Your task to perform on an android device: Open Google Chrome and click the shortcut for Amazon.com Image 0: 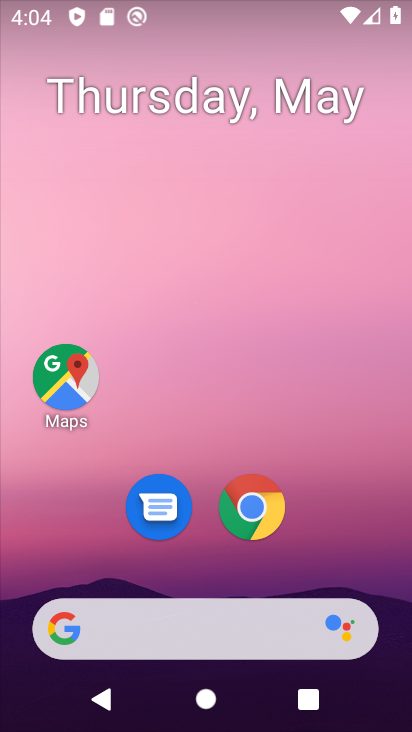
Step 0: drag from (334, 628) to (102, 115)
Your task to perform on an android device: Open Google Chrome and click the shortcut for Amazon.com Image 1: 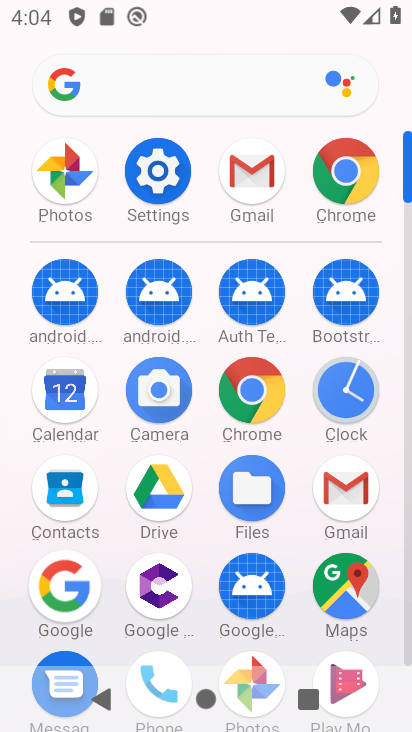
Step 1: click (332, 175)
Your task to perform on an android device: Open Google Chrome and click the shortcut for Amazon.com Image 2: 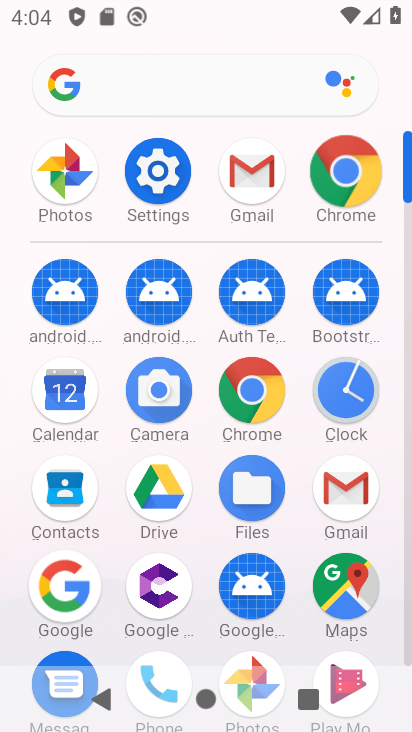
Step 2: click (332, 175)
Your task to perform on an android device: Open Google Chrome and click the shortcut for Amazon.com Image 3: 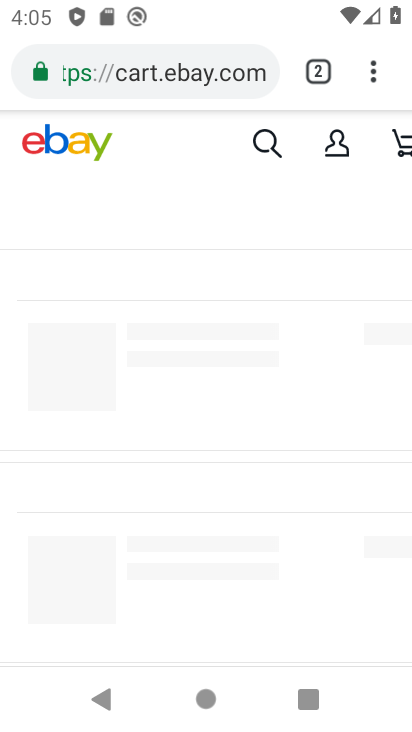
Step 3: click (374, 68)
Your task to perform on an android device: Open Google Chrome and click the shortcut for Amazon.com Image 4: 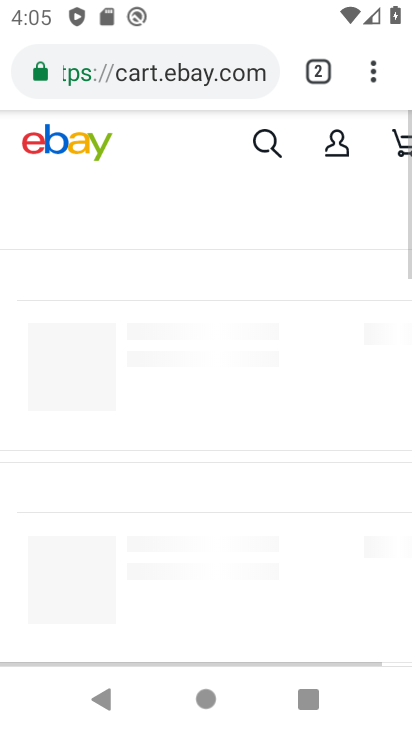
Step 4: drag from (368, 73) to (105, 401)
Your task to perform on an android device: Open Google Chrome and click the shortcut for Amazon.com Image 5: 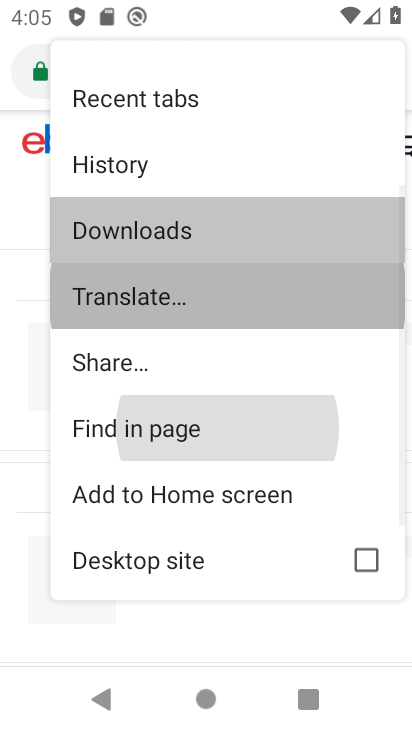
Step 5: click (135, 188)
Your task to perform on an android device: Open Google Chrome and click the shortcut for Amazon.com Image 6: 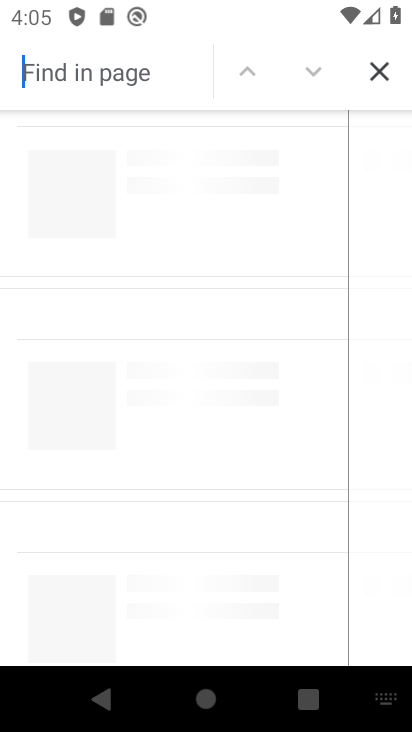
Step 6: click (378, 68)
Your task to perform on an android device: Open Google Chrome and click the shortcut for Amazon.com Image 7: 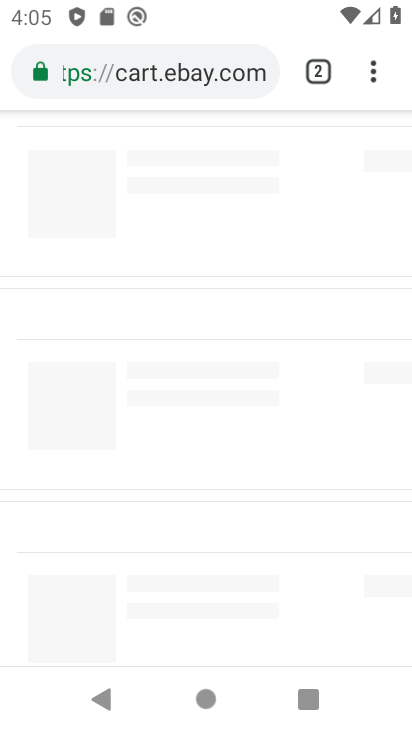
Step 7: click (365, 74)
Your task to perform on an android device: Open Google Chrome and click the shortcut for Amazon.com Image 8: 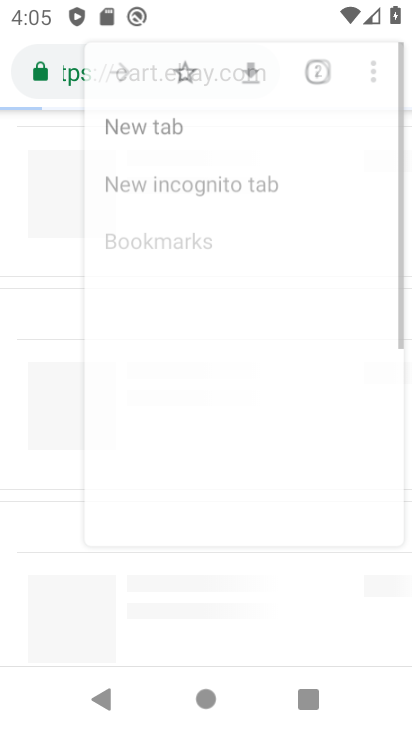
Step 8: click (367, 74)
Your task to perform on an android device: Open Google Chrome and click the shortcut for Amazon.com Image 9: 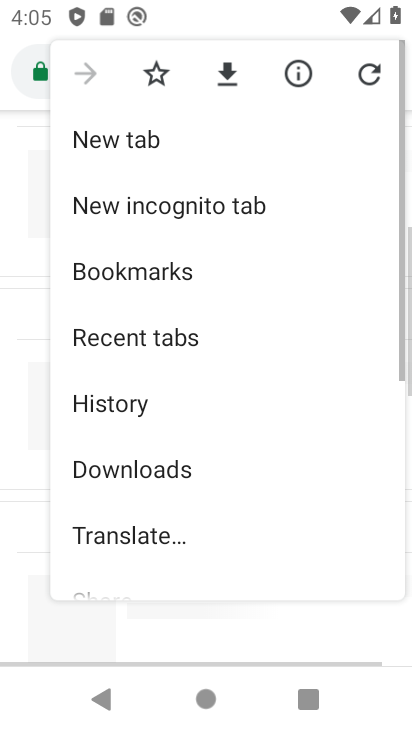
Step 9: click (367, 74)
Your task to perform on an android device: Open Google Chrome and click the shortcut for Amazon.com Image 10: 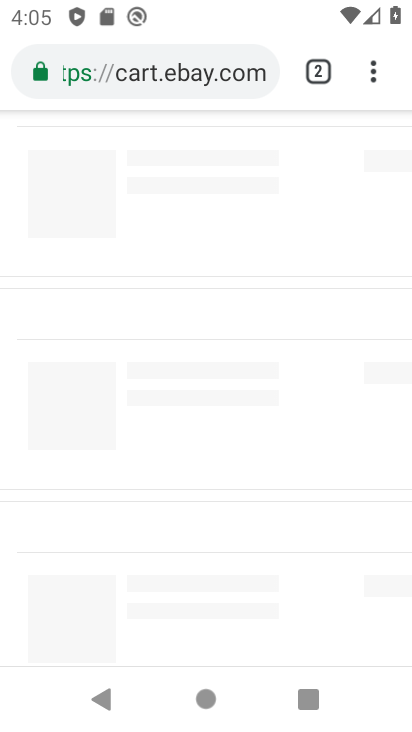
Step 10: press back button
Your task to perform on an android device: Open Google Chrome and click the shortcut for Amazon.com Image 11: 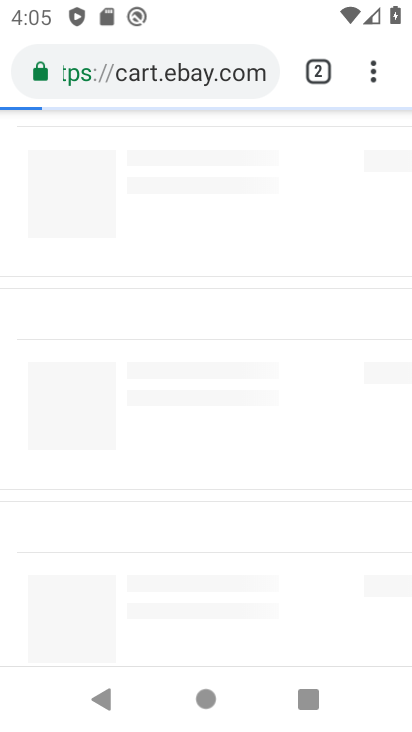
Step 11: press back button
Your task to perform on an android device: Open Google Chrome and click the shortcut for Amazon.com Image 12: 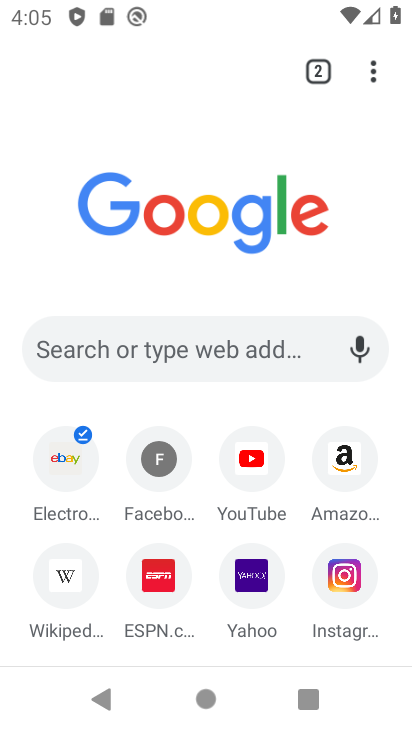
Step 12: click (352, 454)
Your task to perform on an android device: Open Google Chrome and click the shortcut for Amazon.com Image 13: 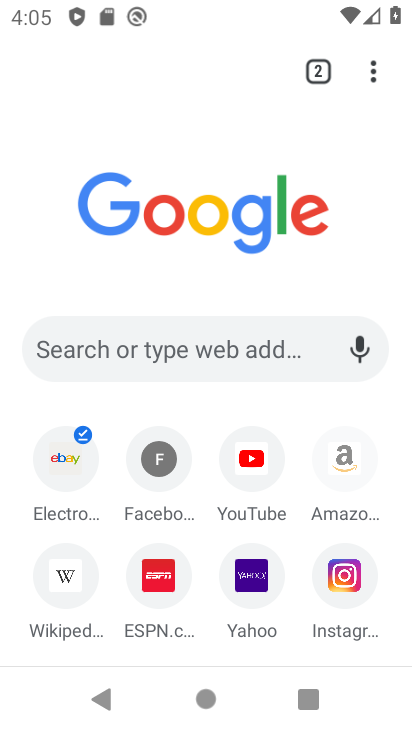
Step 13: click (352, 454)
Your task to perform on an android device: Open Google Chrome and click the shortcut for Amazon.com Image 14: 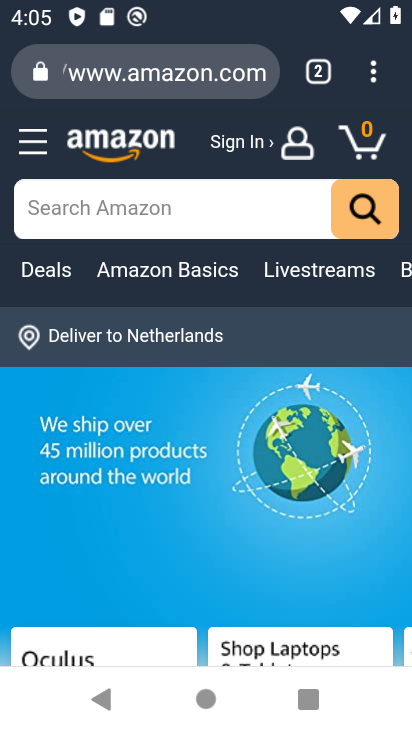
Step 14: task complete